Your task to perform on an android device: Search for the best Nike running shoes on Nike.com Image 0: 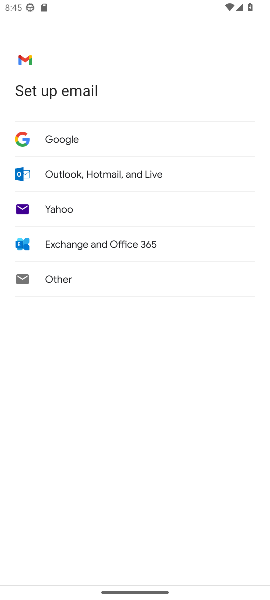
Step 0: press home button
Your task to perform on an android device: Search for the best Nike running shoes on Nike.com Image 1: 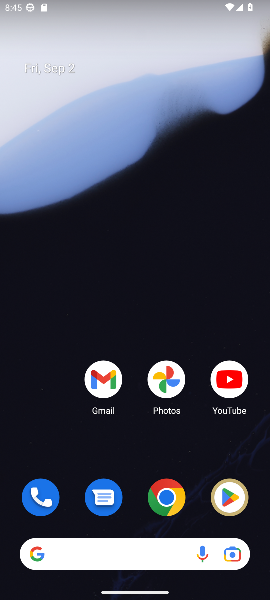
Step 1: drag from (125, 519) to (125, 174)
Your task to perform on an android device: Search for the best Nike running shoes on Nike.com Image 2: 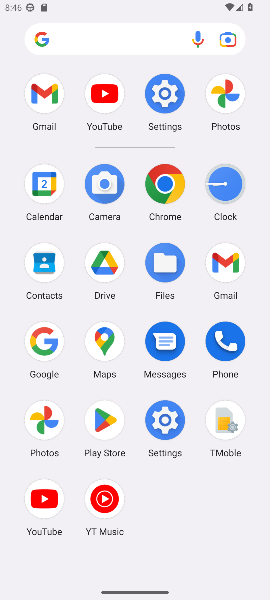
Step 2: click (44, 344)
Your task to perform on an android device: Search for the best Nike running shoes on Nike.com Image 3: 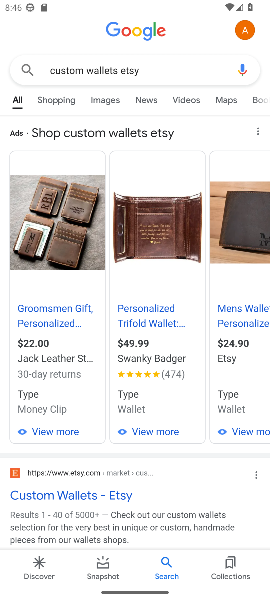
Step 3: click (176, 66)
Your task to perform on an android device: Search for the best Nike running shoes on Nike.com Image 4: 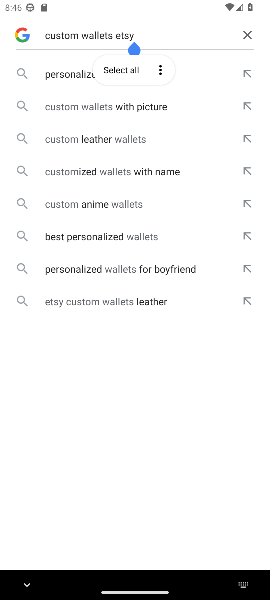
Step 4: click (245, 35)
Your task to perform on an android device: Search for the best Nike running shoes on Nike.com Image 5: 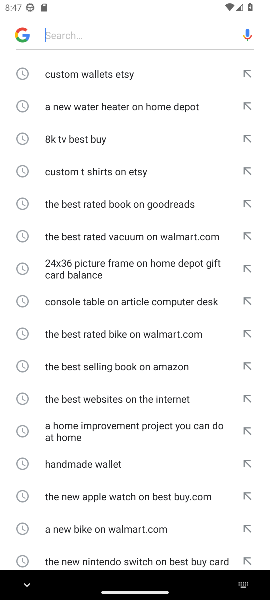
Step 5: type "the best Nike running shoes on Nike.com"
Your task to perform on an android device: Search for the best Nike running shoes on Nike.com Image 6: 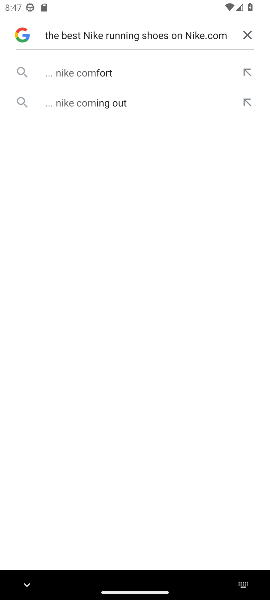
Step 6: click (84, 72)
Your task to perform on an android device: Search for the best Nike running shoes on Nike.com Image 7: 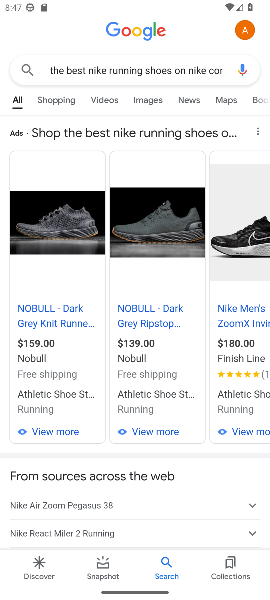
Step 7: task complete